Your task to perform on an android device: clear history in the chrome app Image 0: 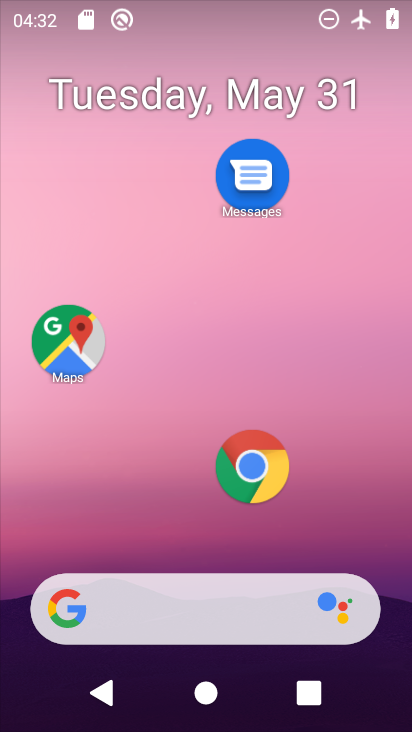
Step 0: click (238, 470)
Your task to perform on an android device: clear history in the chrome app Image 1: 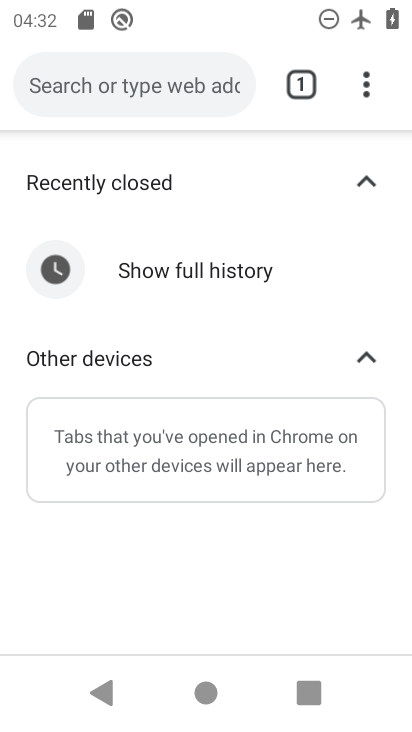
Step 1: click (367, 83)
Your task to perform on an android device: clear history in the chrome app Image 2: 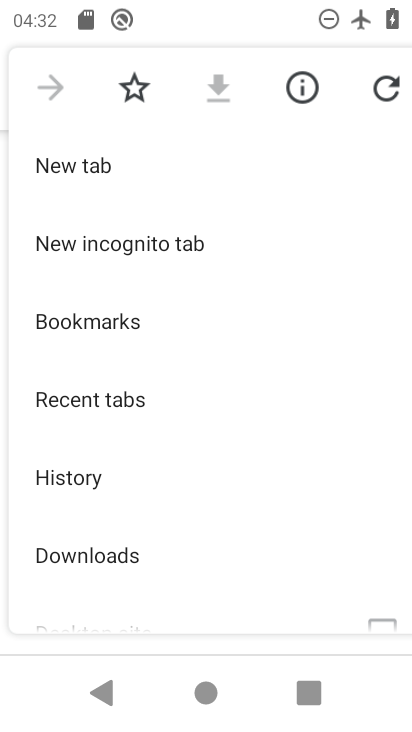
Step 2: click (91, 477)
Your task to perform on an android device: clear history in the chrome app Image 3: 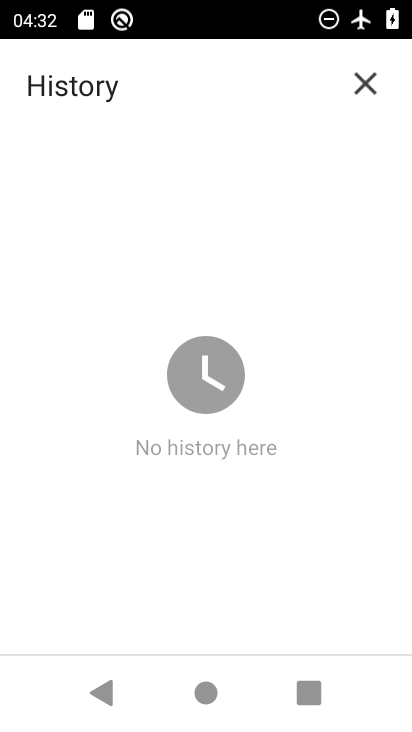
Step 3: task complete